Your task to perform on an android device: What's the news in Paraguay? Image 0: 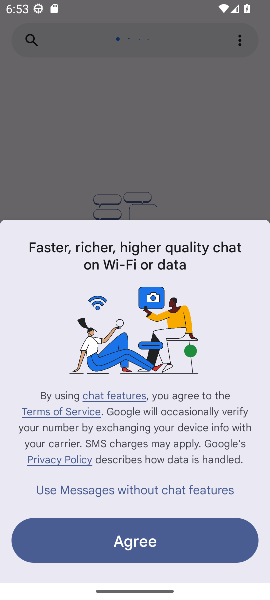
Step 0: press home button
Your task to perform on an android device: What's the news in Paraguay? Image 1: 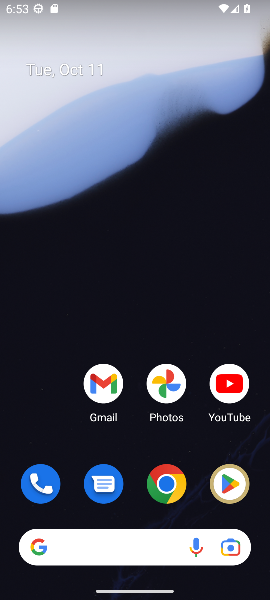
Step 1: drag from (119, 570) to (136, 14)
Your task to perform on an android device: What's the news in Paraguay? Image 2: 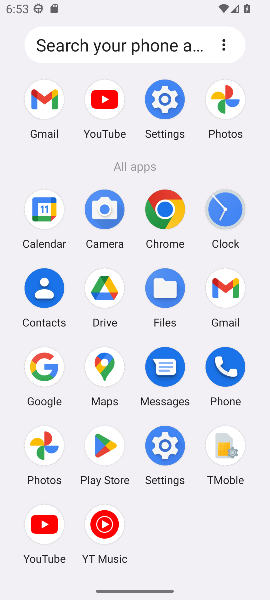
Step 2: click (164, 209)
Your task to perform on an android device: What's the news in Paraguay? Image 3: 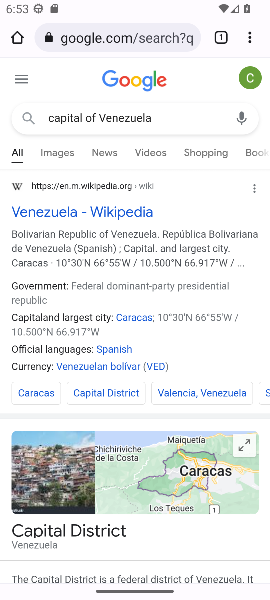
Step 3: click (123, 44)
Your task to perform on an android device: What's the news in Paraguay? Image 4: 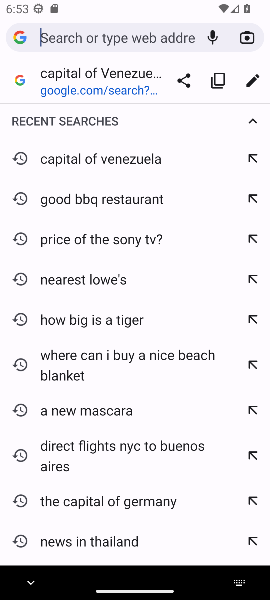
Step 4: type "What's the news in Paraguay?"
Your task to perform on an android device: What's the news in Paraguay? Image 5: 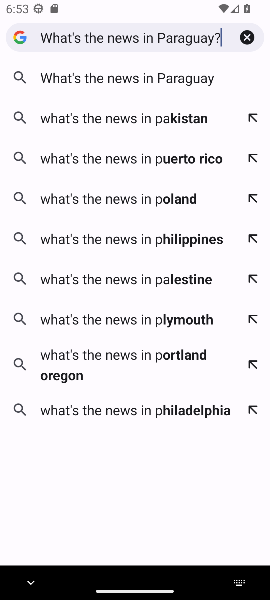
Step 5: press enter
Your task to perform on an android device: What's the news in Paraguay? Image 6: 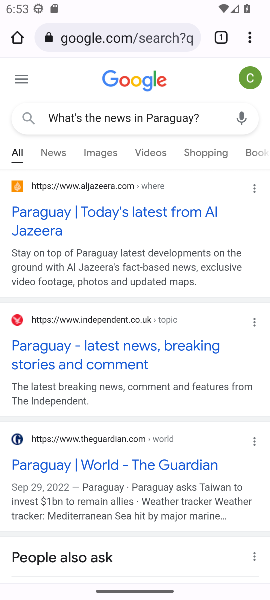
Step 6: click (28, 214)
Your task to perform on an android device: What's the news in Paraguay? Image 7: 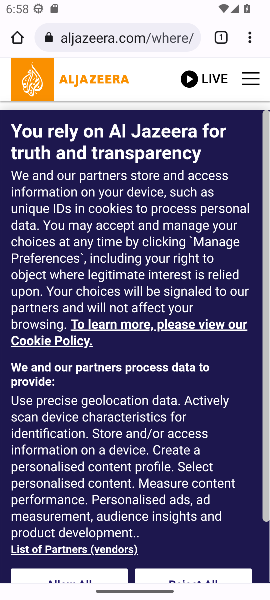
Step 7: task complete